Your task to perform on an android device: delete location history Image 0: 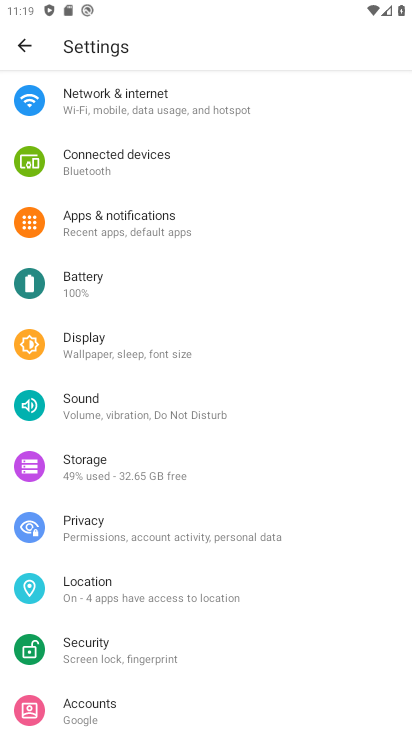
Step 0: press home button
Your task to perform on an android device: delete location history Image 1: 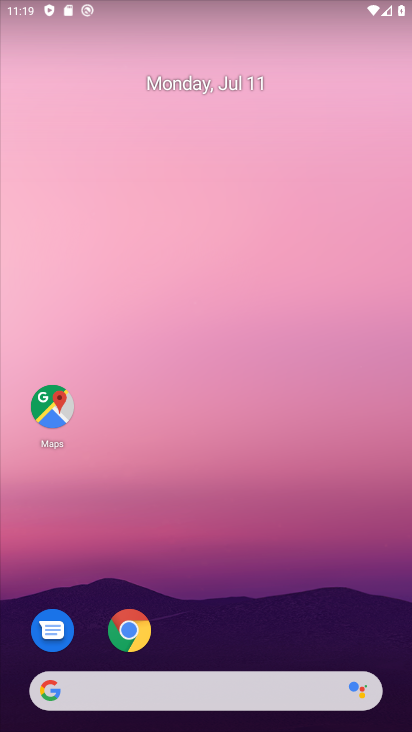
Step 1: click (51, 405)
Your task to perform on an android device: delete location history Image 2: 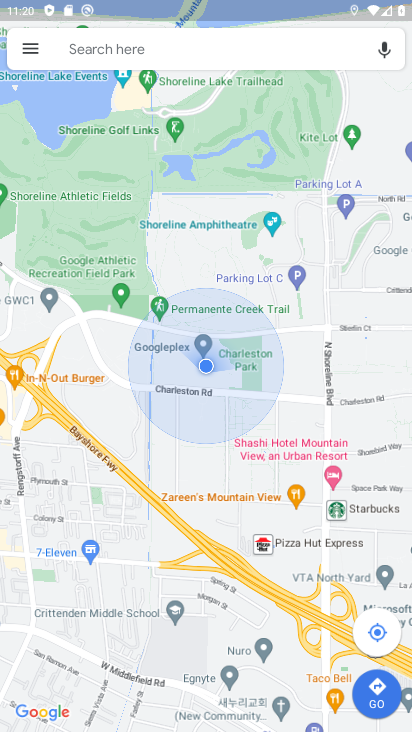
Step 2: click (32, 45)
Your task to perform on an android device: delete location history Image 3: 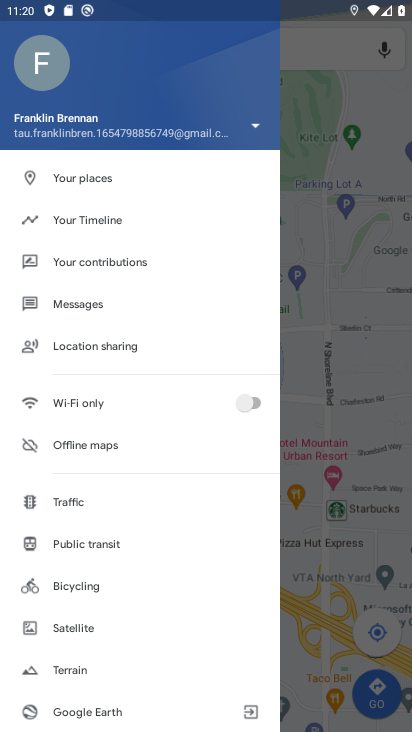
Step 3: drag from (83, 568) to (129, 472)
Your task to perform on an android device: delete location history Image 4: 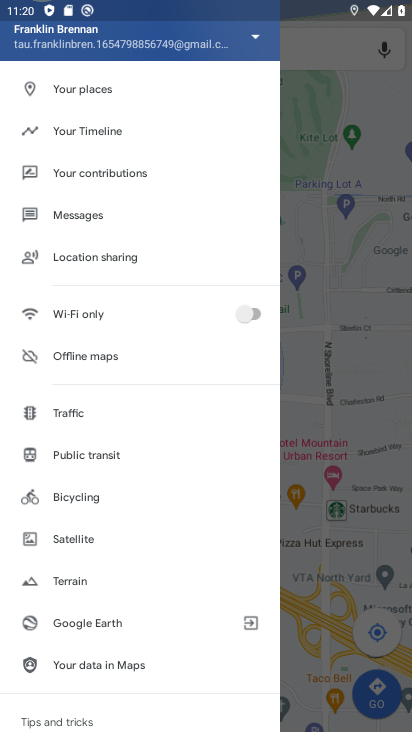
Step 4: drag from (80, 595) to (122, 512)
Your task to perform on an android device: delete location history Image 5: 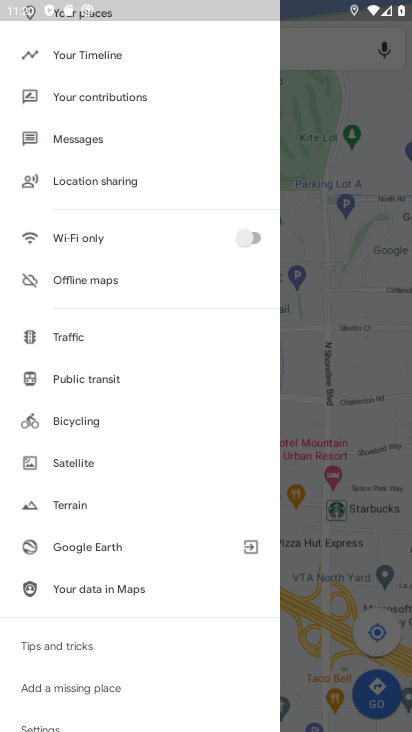
Step 5: drag from (85, 615) to (143, 507)
Your task to perform on an android device: delete location history Image 6: 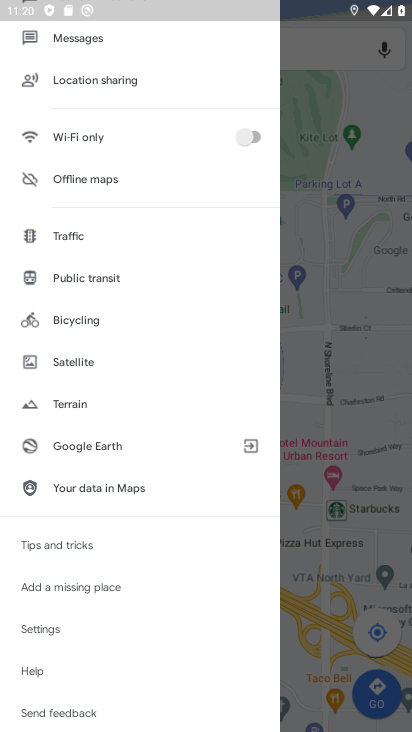
Step 6: drag from (75, 621) to (151, 509)
Your task to perform on an android device: delete location history Image 7: 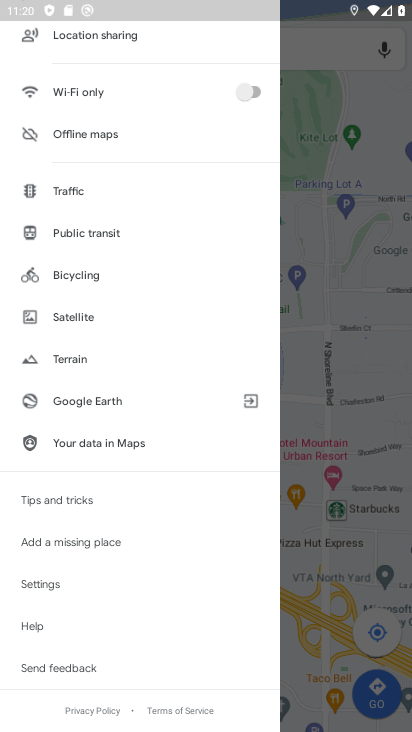
Step 7: click (48, 580)
Your task to perform on an android device: delete location history Image 8: 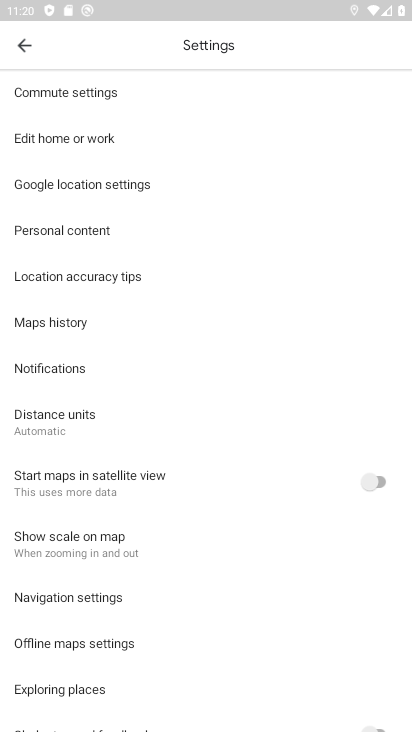
Step 8: drag from (105, 112) to (91, 318)
Your task to perform on an android device: delete location history Image 9: 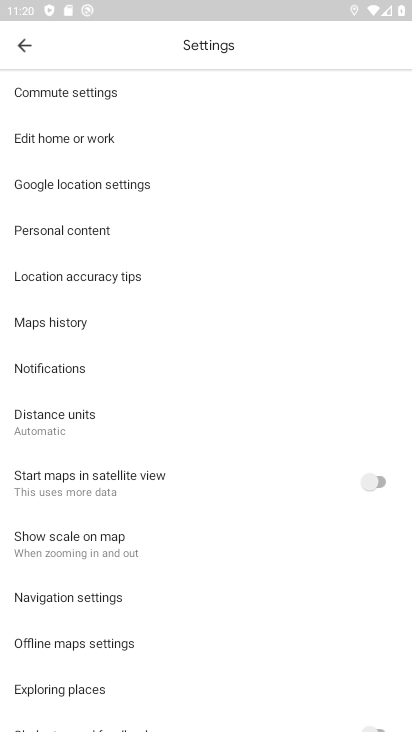
Step 9: click (95, 231)
Your task to perform on an android device: delete location history Image 10: 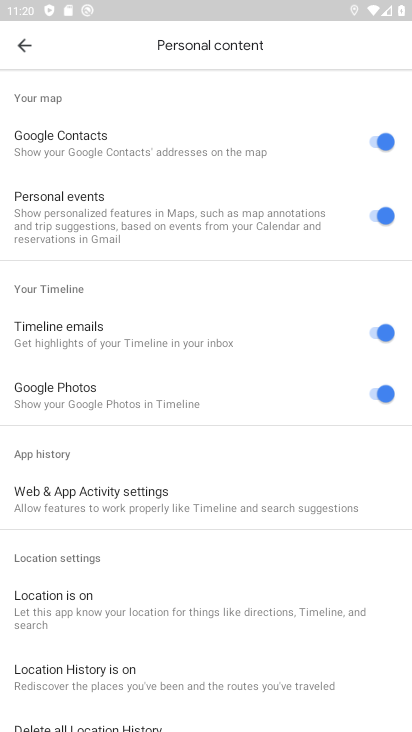
Step 10: drag from (102, 558) to (214, 258)
Your task to perform on an android device: delete location history Image 11: 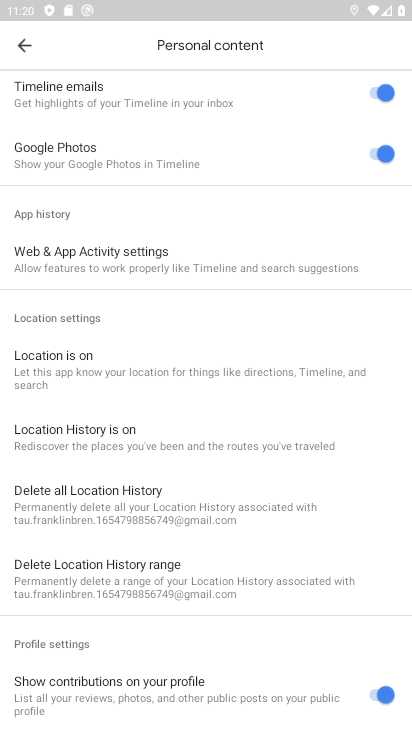
Step 11: click (132, 498)
Your task to perform on an android device: delete location history Image 12: 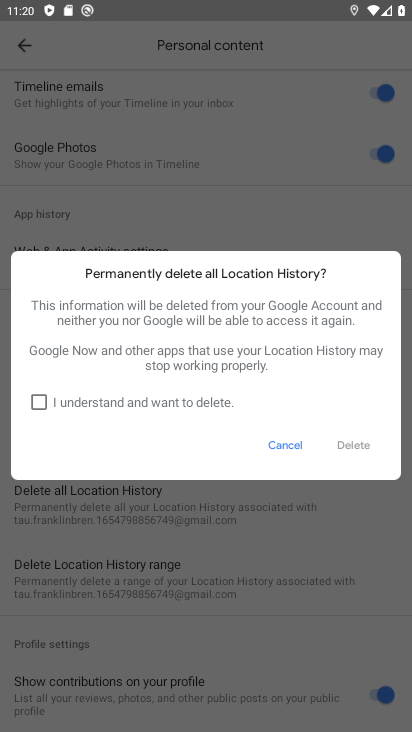
Step 12: click (37, 399)
Your task to perform on an android device: delete location history Image 13: 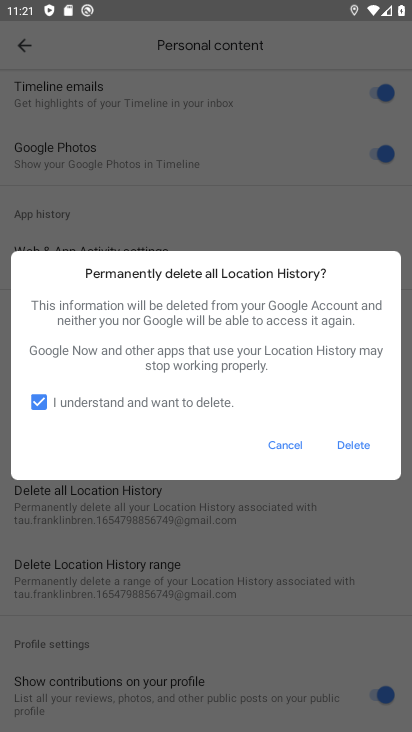
Step 13: click (359, 446)
Your task to perform on an android device: delete location history Image 14: 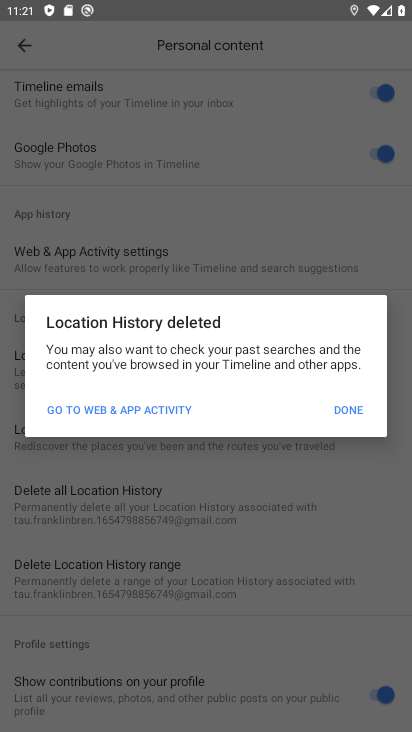
Step 14: click (350, 403)
Your task to perform on an android device: delete location history Image 15: 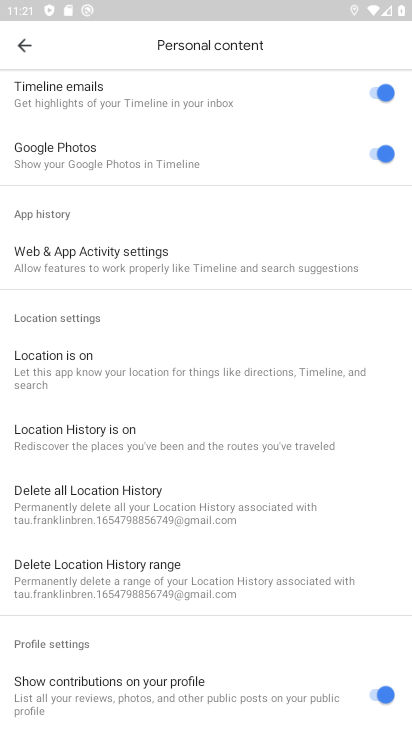
Step 15: task complete